Your task to perform on an android device: What's on my calendar tomorrow? Image 0: 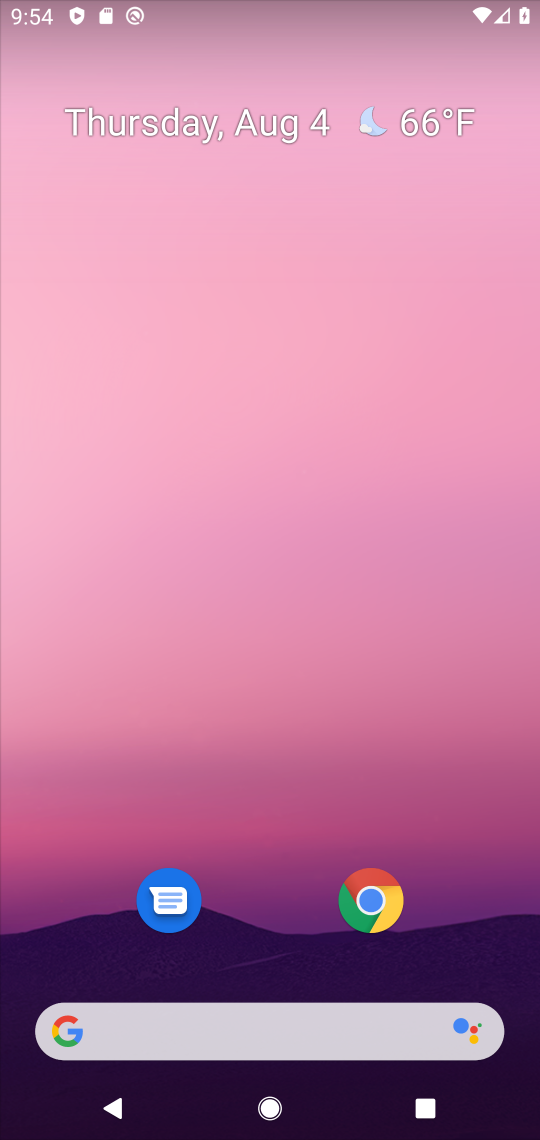
Step 0: drag from (496, 930) to (313, 150)
Your task to perform on an android device: What's on my calendar tomorrow? Image 1: 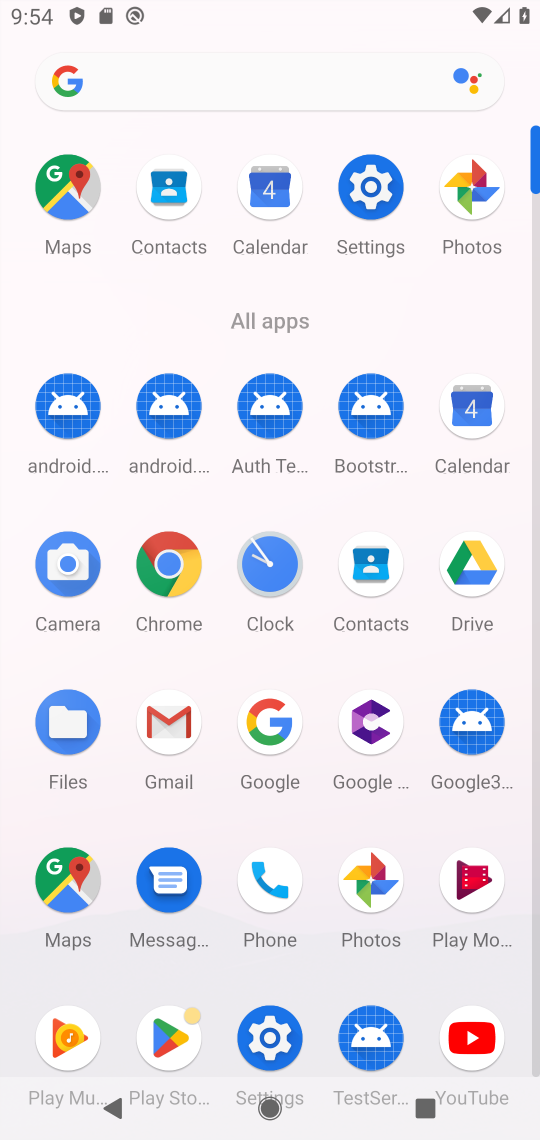
Step 1: click (461, 433)
Your task to perform on an android device: What's on my calendar tomorrow? Image 2: 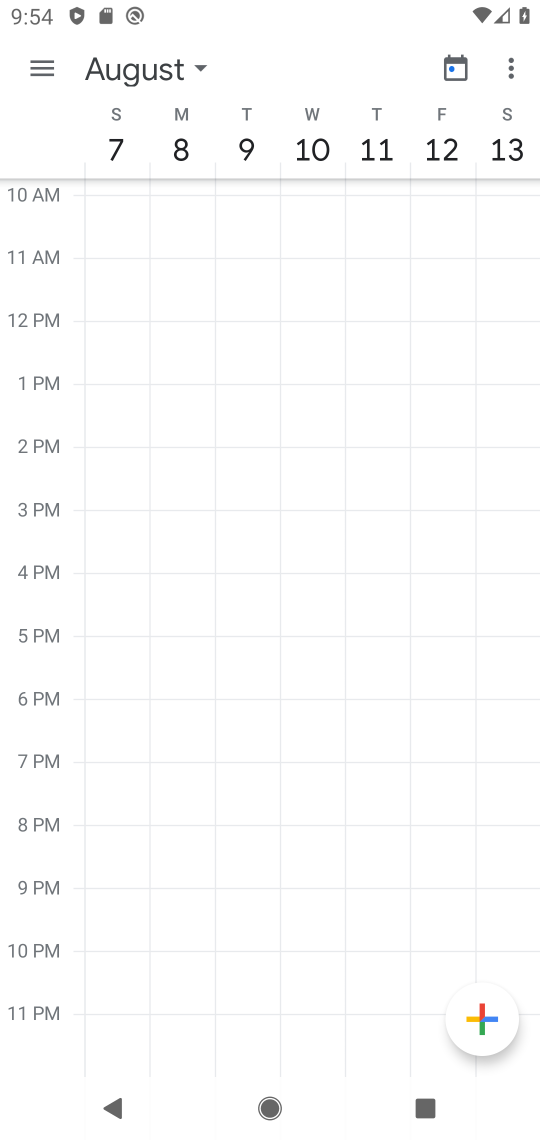
Step 2: click (469, 420)
Your task to perform on an android device: What's on my calendar tomorrow? Image 3: 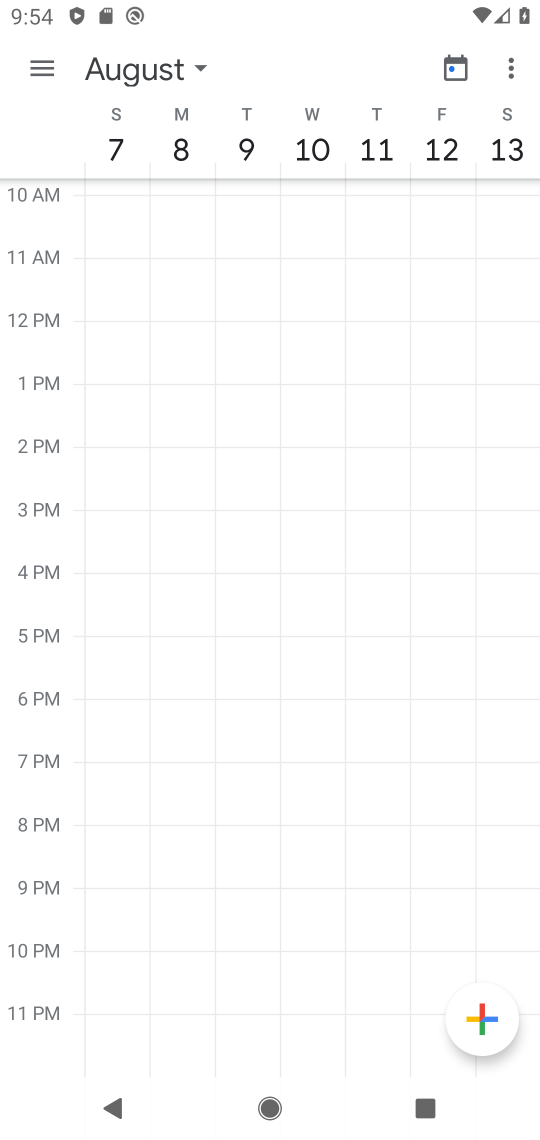
Step 3: click (42, 92)
Your task to perform on an android device: What's on my calendar tomorrow? Image 4: 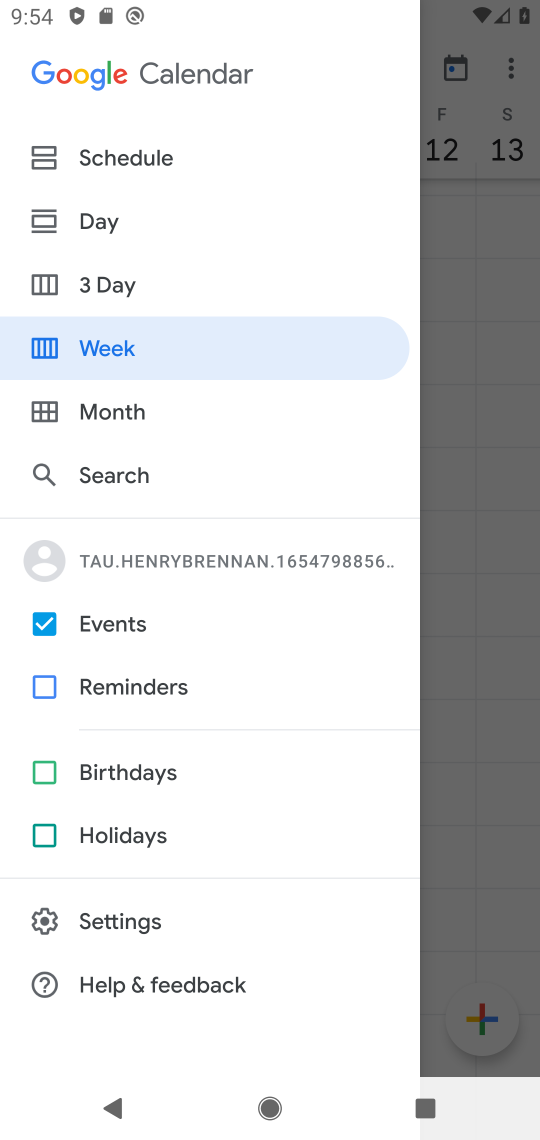
Step 4: click (104, 211)
Your task to perform on an android device: What's on my calendar tomorrow? Image 5: 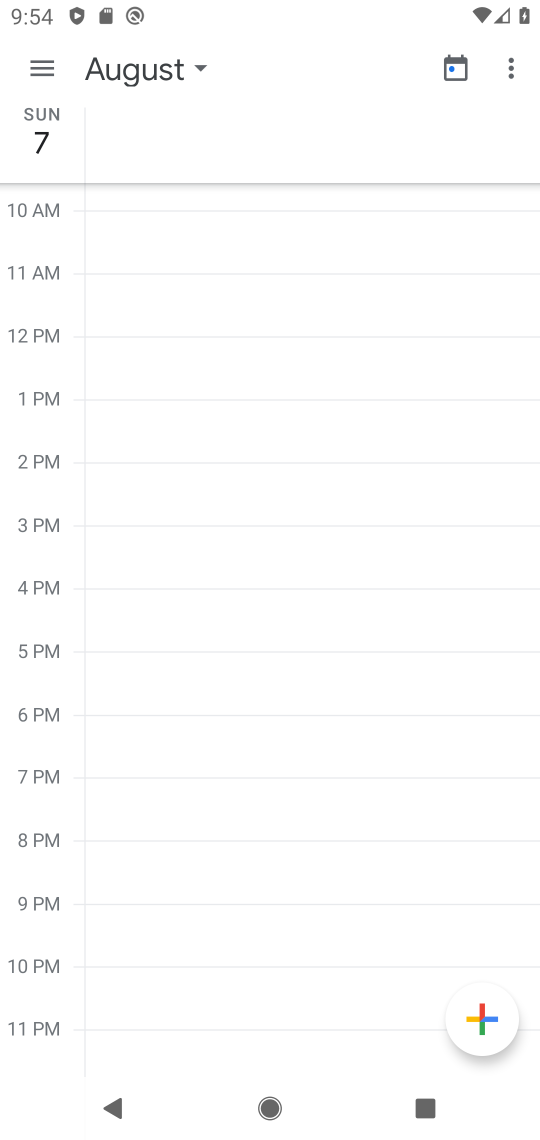
Step 5: click (146, 72)
Your task to perform on an android device: What's on my calendar tomorrow? Image 6: 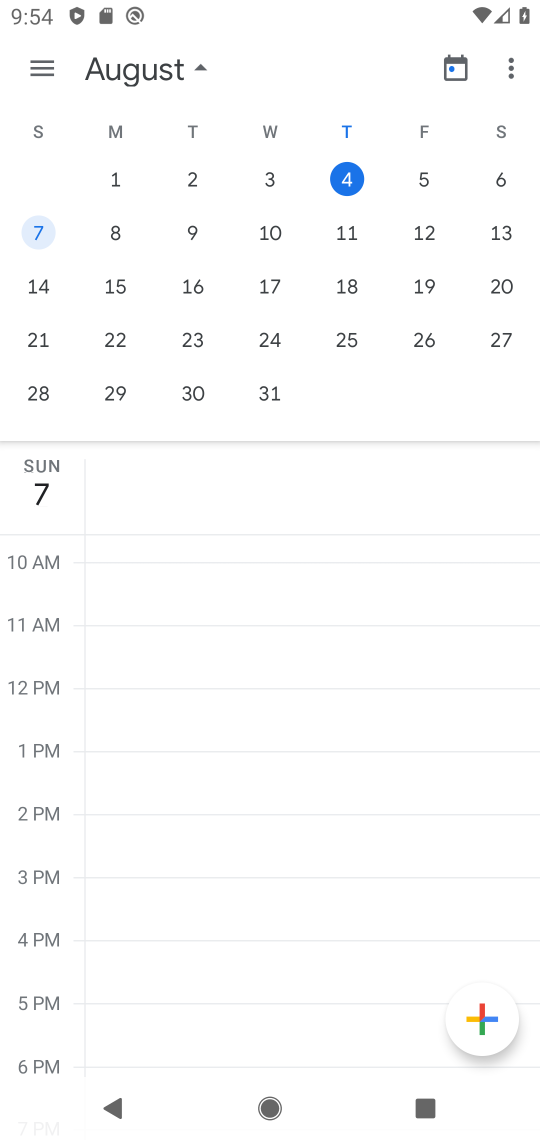
Step 6: click (494, 167)
Your task to perform on an android device: What's on my calendar tomorrow? Image 7: 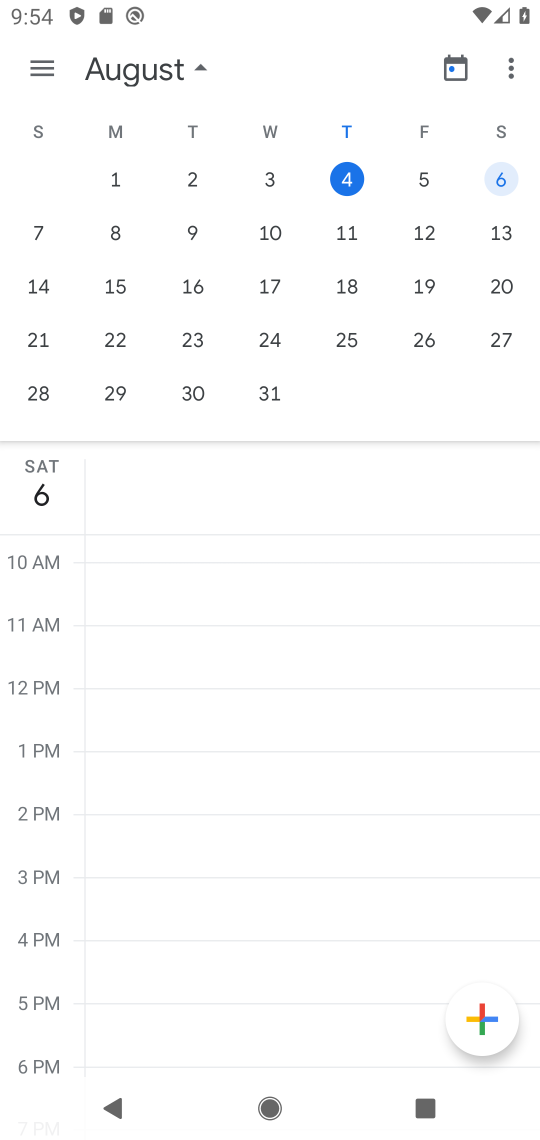
Step 7: task complete